Your task to perform on an android device: make emails show in primary in the gmail app Image 0: 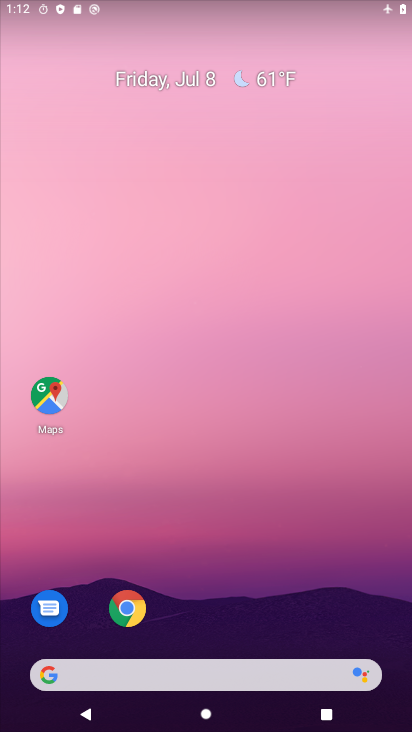
Step 0: drag from (197, 602) to (236, 196)
Your task to perform on an android device: make emails show in primary in the gmail app Image 1: 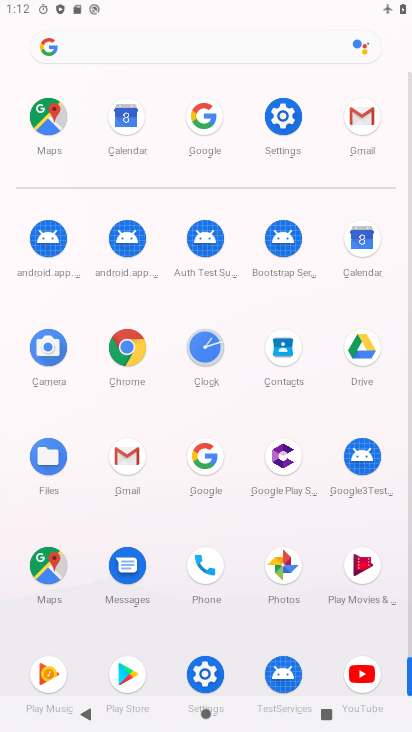
Step 1: click (360, 113)
Your task to perform on an android device: make emails show in primary in the gmail app Image 2: 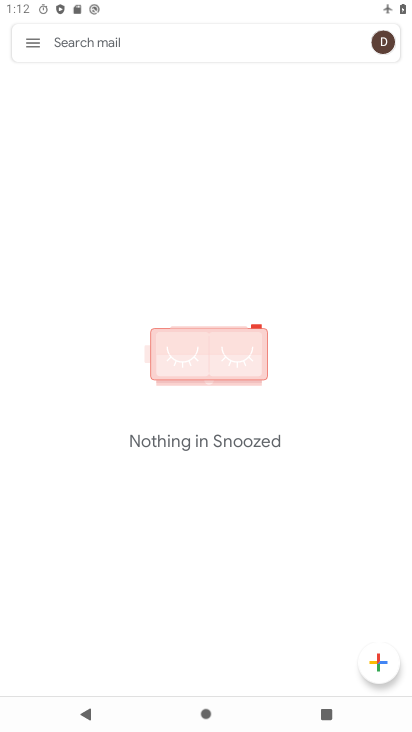
Step 2: click (23, 44)
Your task to perform on an android device: make emails show in primary in the gmail app Image 3: 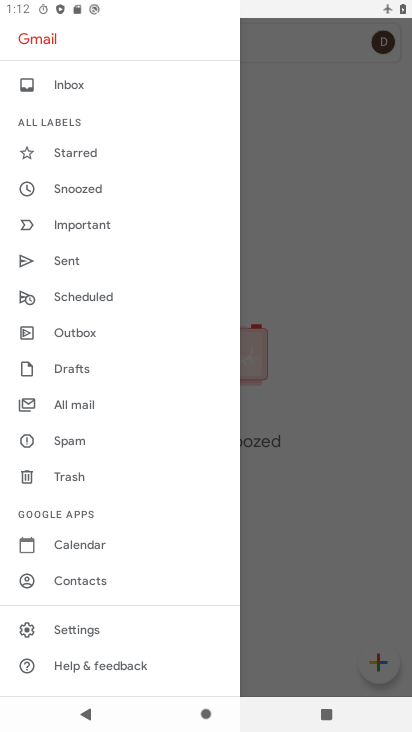
Step 3: click (86, 624)
Your task to perform on an android device: make emails show in primary in the gmail app Image 4: 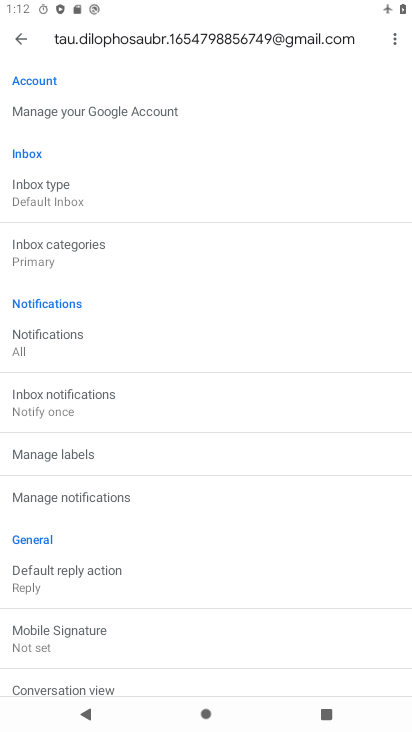
Step 4: task complete